Your task to perform on an android device: Is it going to rain today? Image 0: 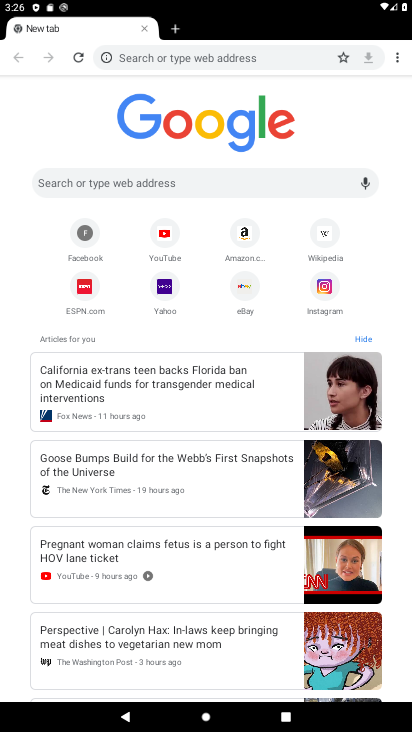
Step 0: click (220, 189)
Your task to perform on an android device: Is it going to rain today? Image 1: 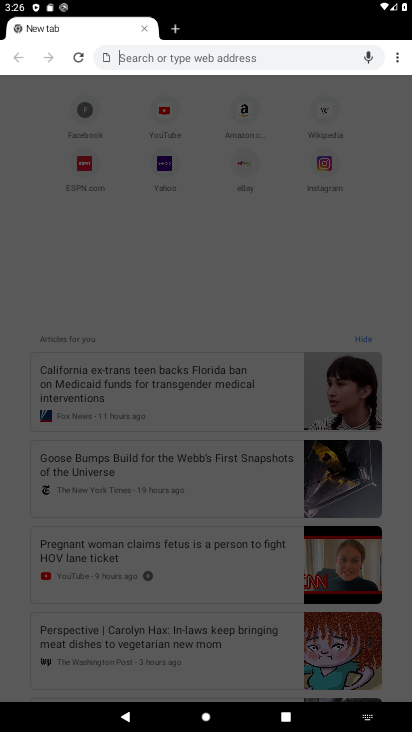
Step 1: type "weather"
Your task to perform on an android device: Is it going to rain today? Image 2: 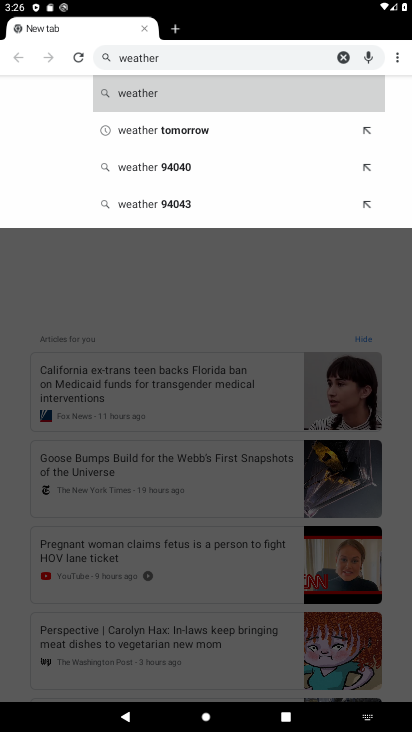
Step 2: click (163, 85)
Your task to perform on an android device: Is it going to rain today? Image 3: 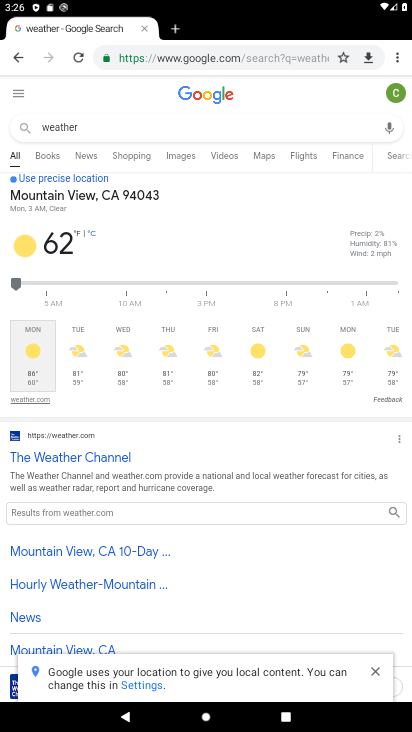
Step 3: task complete